Your task to perform on an android device: toggle improve location accuracy Image 0: 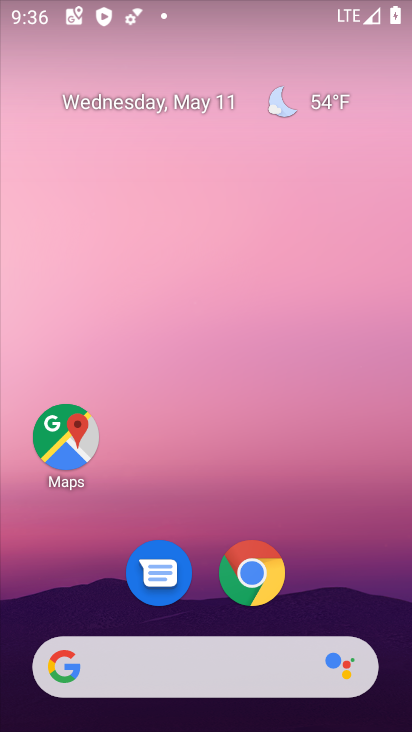
Step 0: drag from (299, 624) to (336, 108)
Your task to perform on an android device: toggle improve location accuracy Image 1: 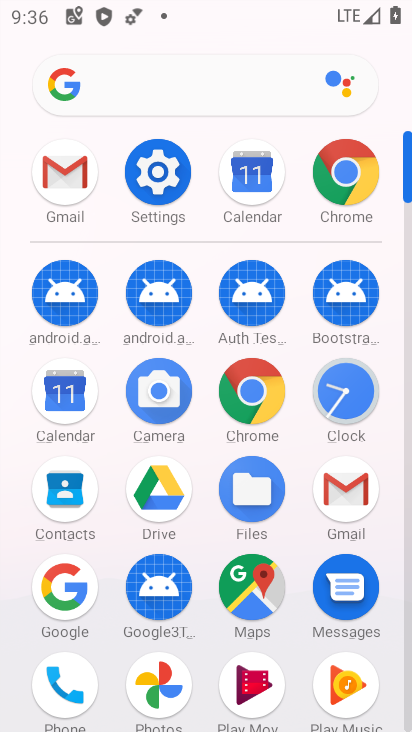
Step 1: click (151, 173)
Your task to perform on an android device: toggle improve location accuracy Image 2: 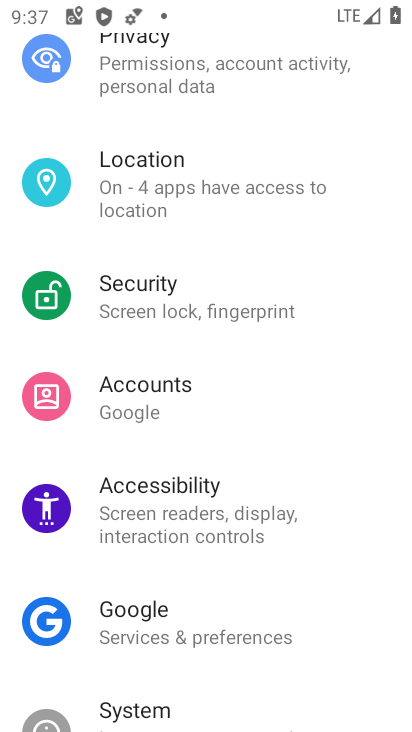
Step 2: click (229, 197)
Your task to perform on an android device: toggle improve location accuracy Image 3: 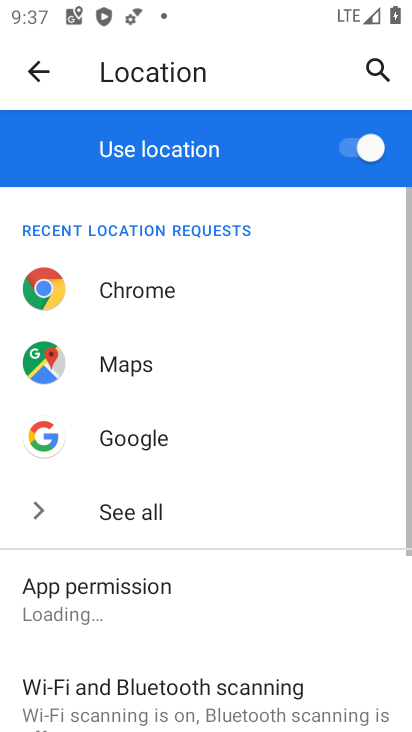
Step 3: drag from (225, 683) to (336, 125)
Your task to perform on an android device: toggle improve location accuracy Image 4: 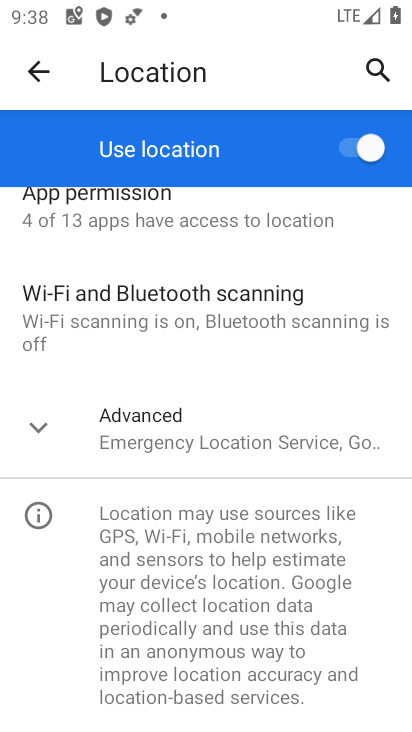
Step 4: click (317, 430)
Your task to perform on an android device: toggle improve location accuracy Image 5: 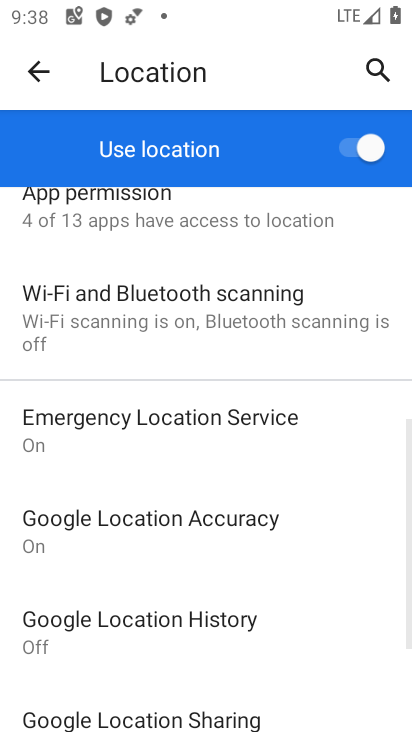
Step 5: click (222, 523)
Your task to perform on an android device: toggle improve location accuracy Image 6: 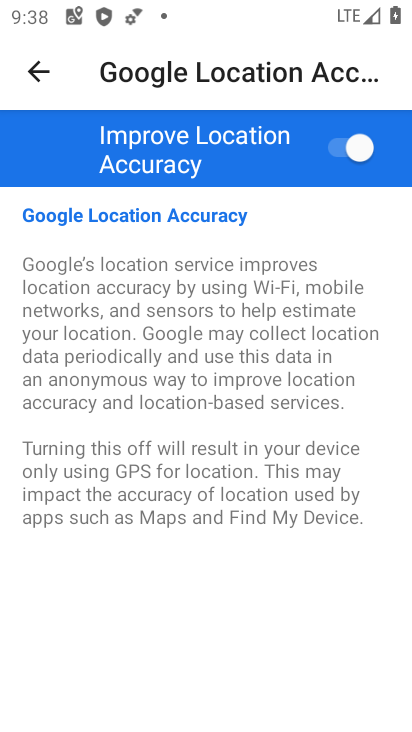
Step 6: click (343, 146)
Your task to perform on an android device: toggle improve location accuracy Image 7: 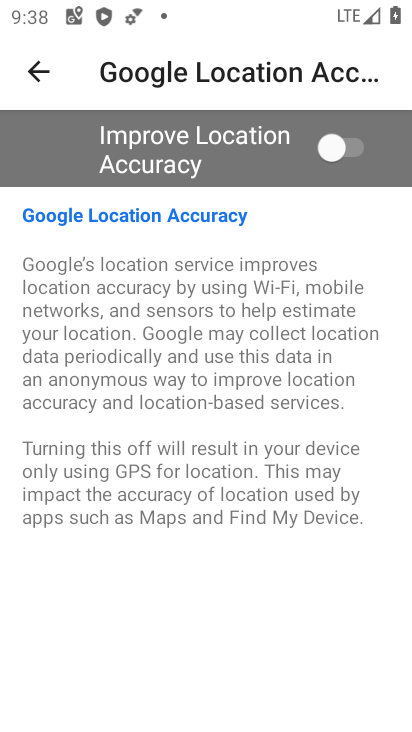
Step 7: task complete